Your task to perform on an android device: Go to internet settings Image 0: 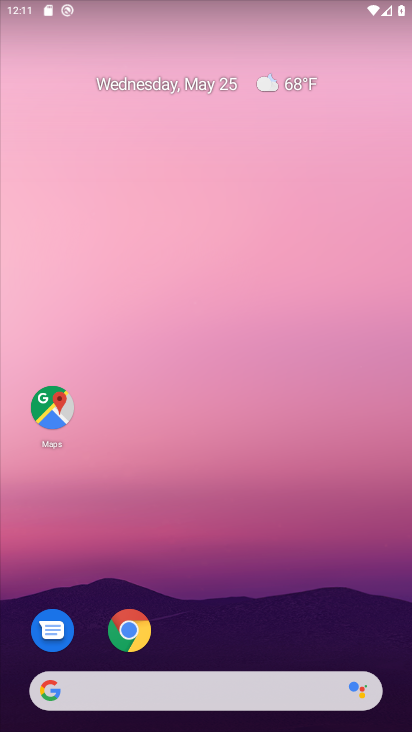
Step 0: drag from (226, 642) to (266, 170)
Your task to perform on an android device: Go to internet settings Image 1: 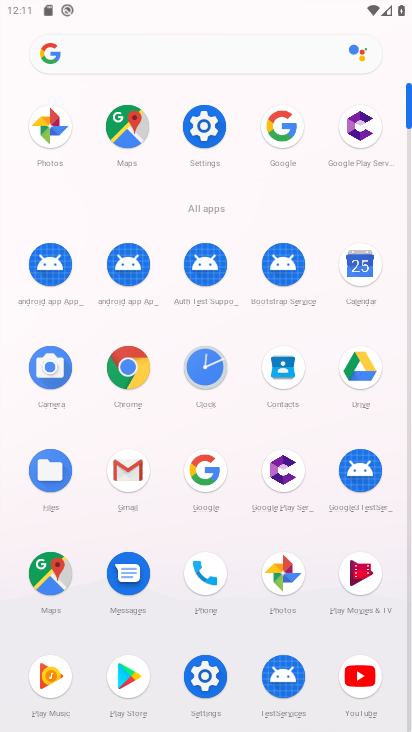
Step 1: click (192, 135)
Your task to perform on an android device: Go to internet settings Image 2: 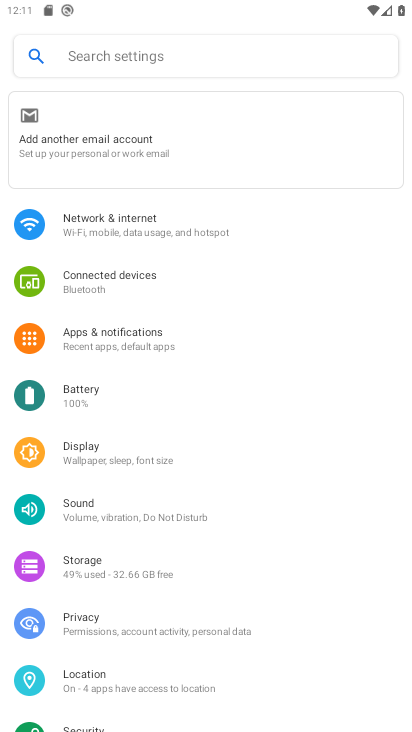
Step 2: click (108, 243)
Your task to perform on an android device: Go to internet settings Image 3: 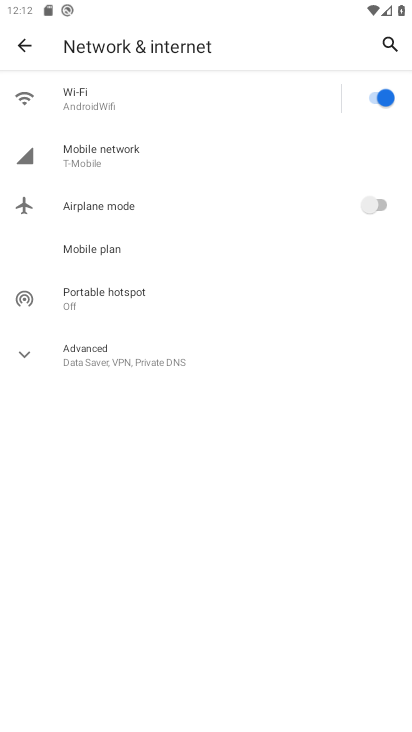
Step 3: click (124, 146)
Your task to perform on an android device: Go to internet settings Image 4: 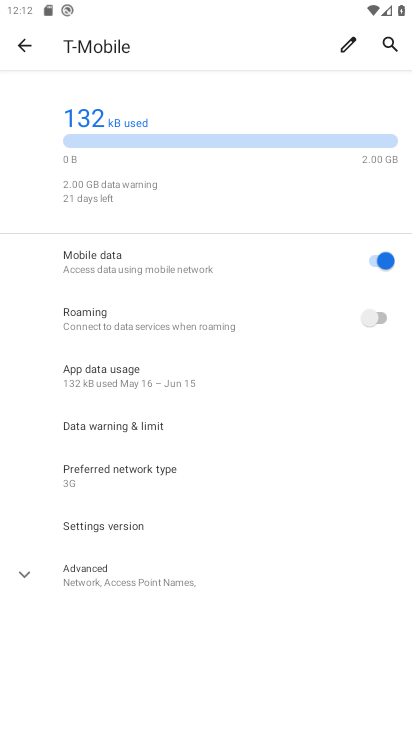
Step 4: task complete